Your task to perform on an android device: Open notification settings Image 0: 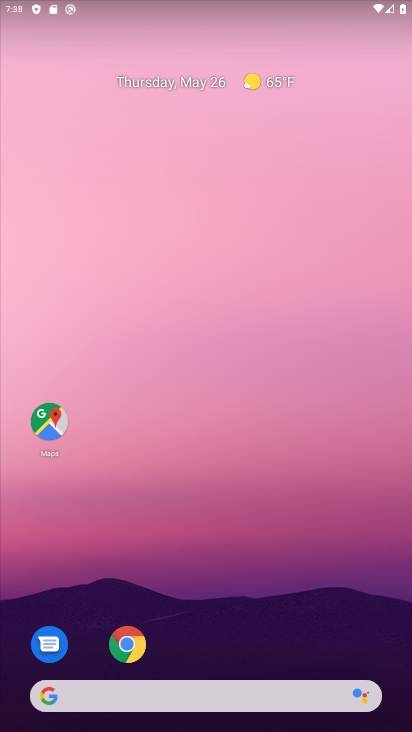
Step 0: drag from (187, 656) to (213, 171)
Your task to perform on an android device: Open notification settings Image 1: 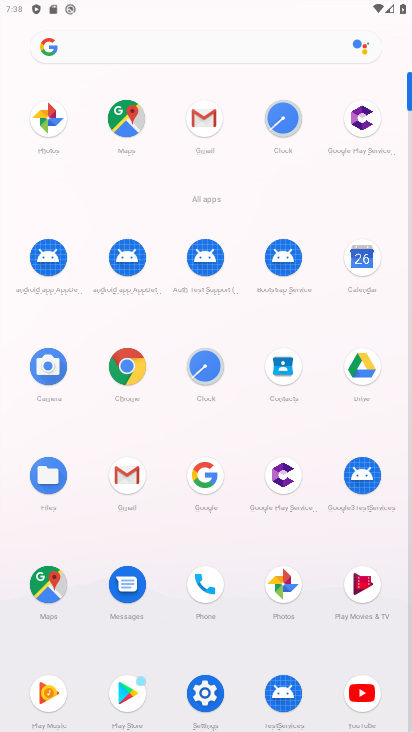
Step 1: drag from (235, 621) to (228, 176)
Your task to perform on an android device: Open notification settings Image 2: 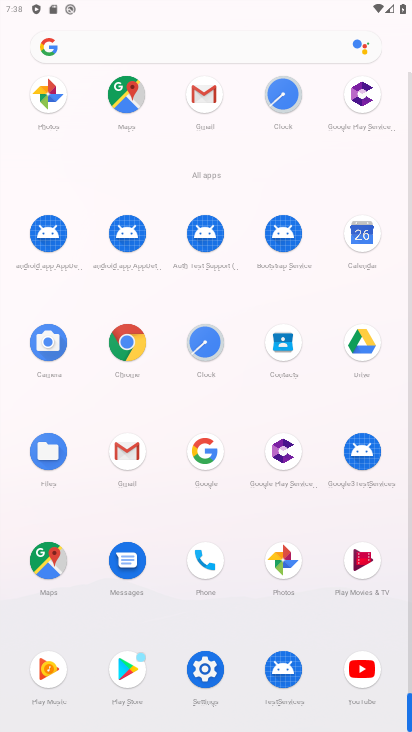
Step 2: click (204, 652)
Your task to perform on an android device: Open notification settings Image 3: 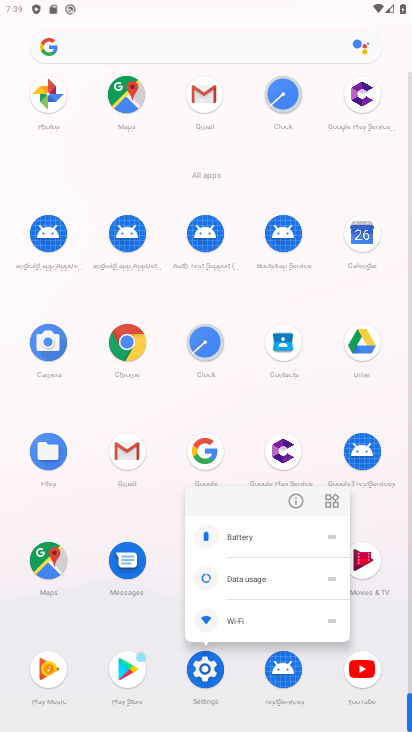
Step 3: click (296, 504)
Your task to perform on an android device: Open notification settings Image 4: 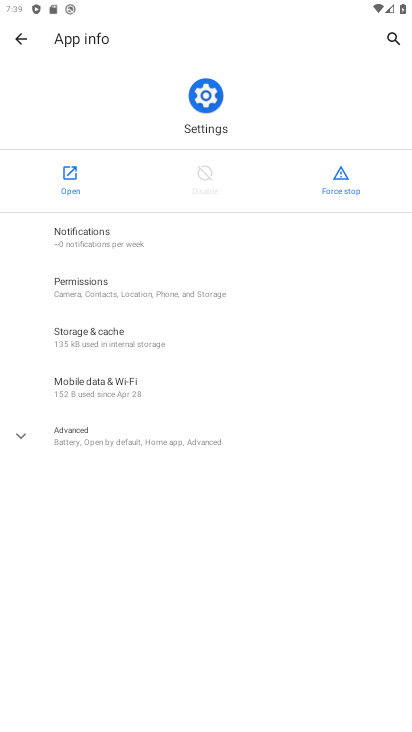
Step 4: click (83, 183)
Your task to perform on an android device: Open notification settings Image 5: 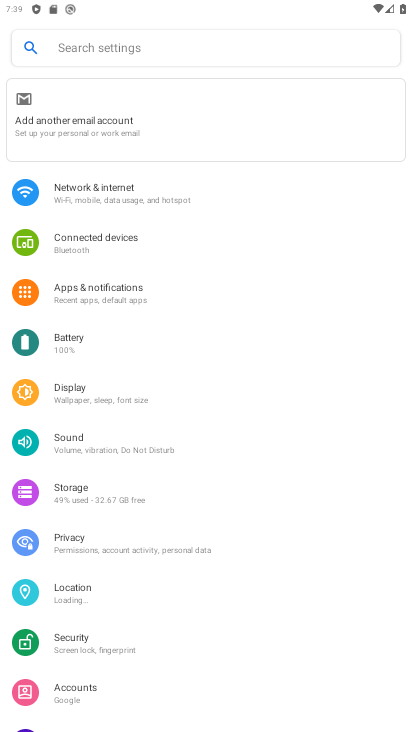
Step 5: drag from (226, 625) to (243, 273)
Your task to perform on an android device: Open notification settings Image 6: 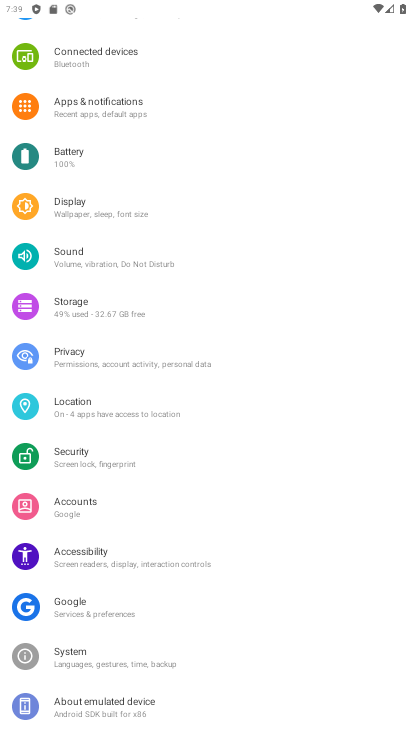
Step 6: click (157, 107)
Your task to perform on an android device: Open notification settings Image 7: 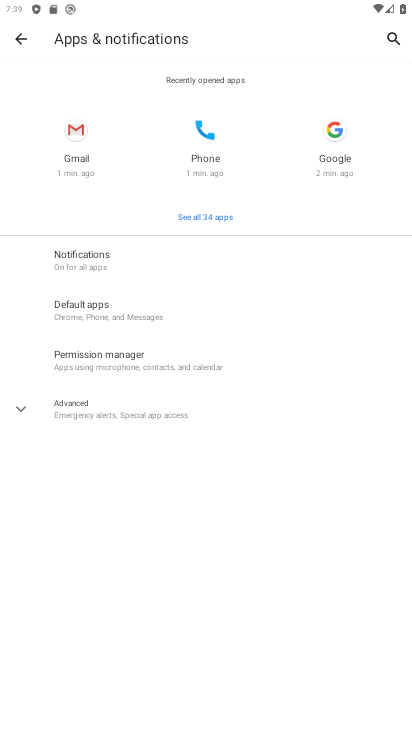
Step 7: click (153, 268)
Your task to perform on an android device: Open notification settings Image 8: 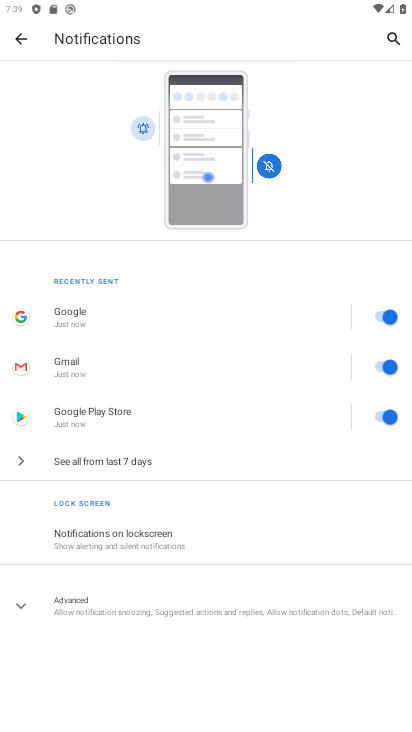
Step 8: drag from (211, 665) to (283, 314)
Your task to perform on an android device: Open notification settings Image 9: 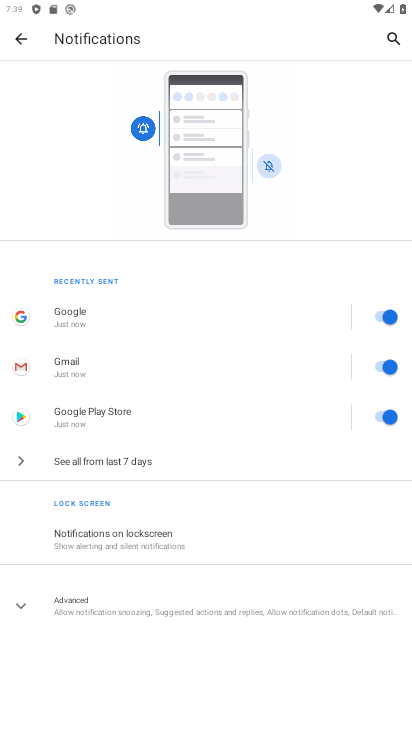
Step 9: click (97, 604)
Your task to perform on an android device: Open notification settings Image 10: 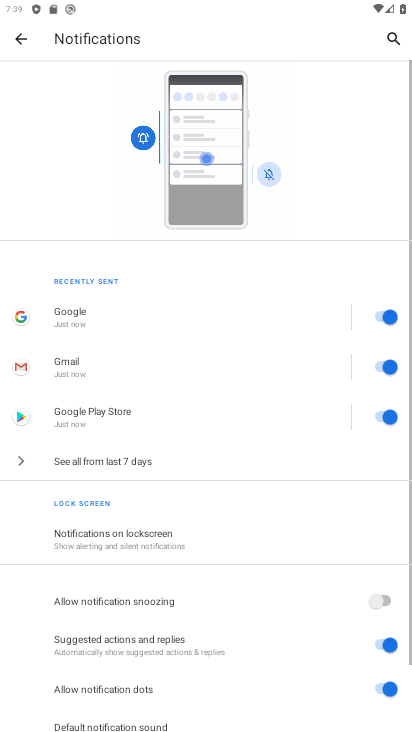
Step 10: task complete